Your task to perform on an android device: turn off translation in the chrome app Image 0: 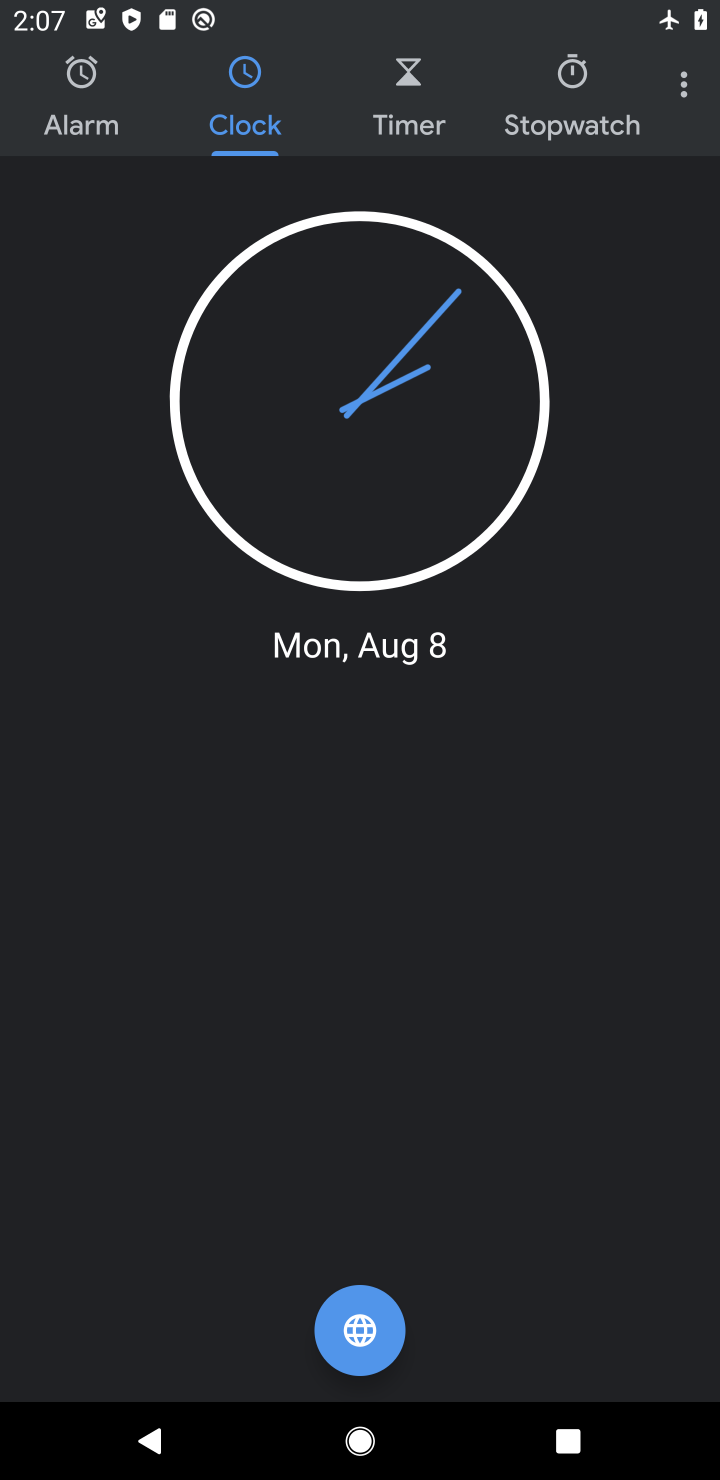
Step 0: press home button
Your task to perform on an android device: turn off translation in the chrome app Image 1: 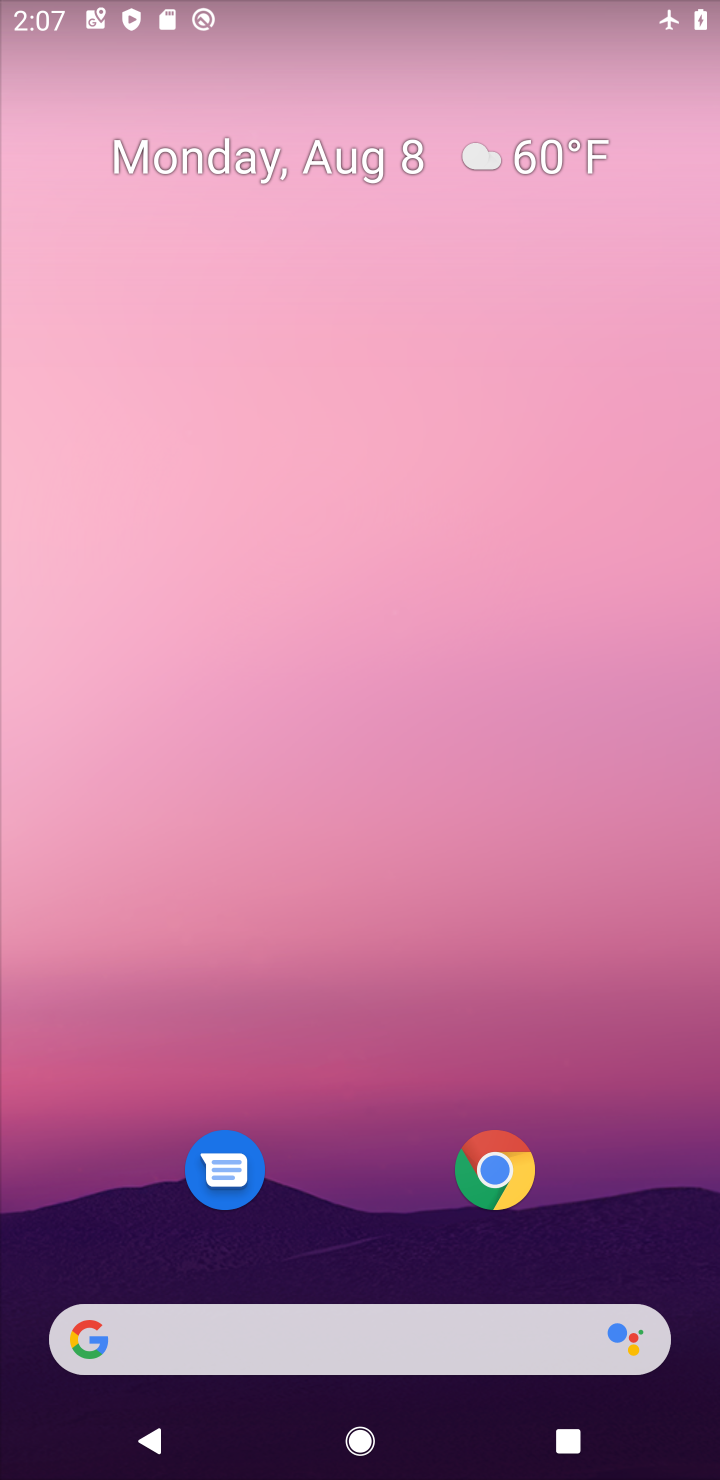
Step 1: click (493, 1145)
Your task to perform on an android device: turn off translation in the chrome app Image 2: 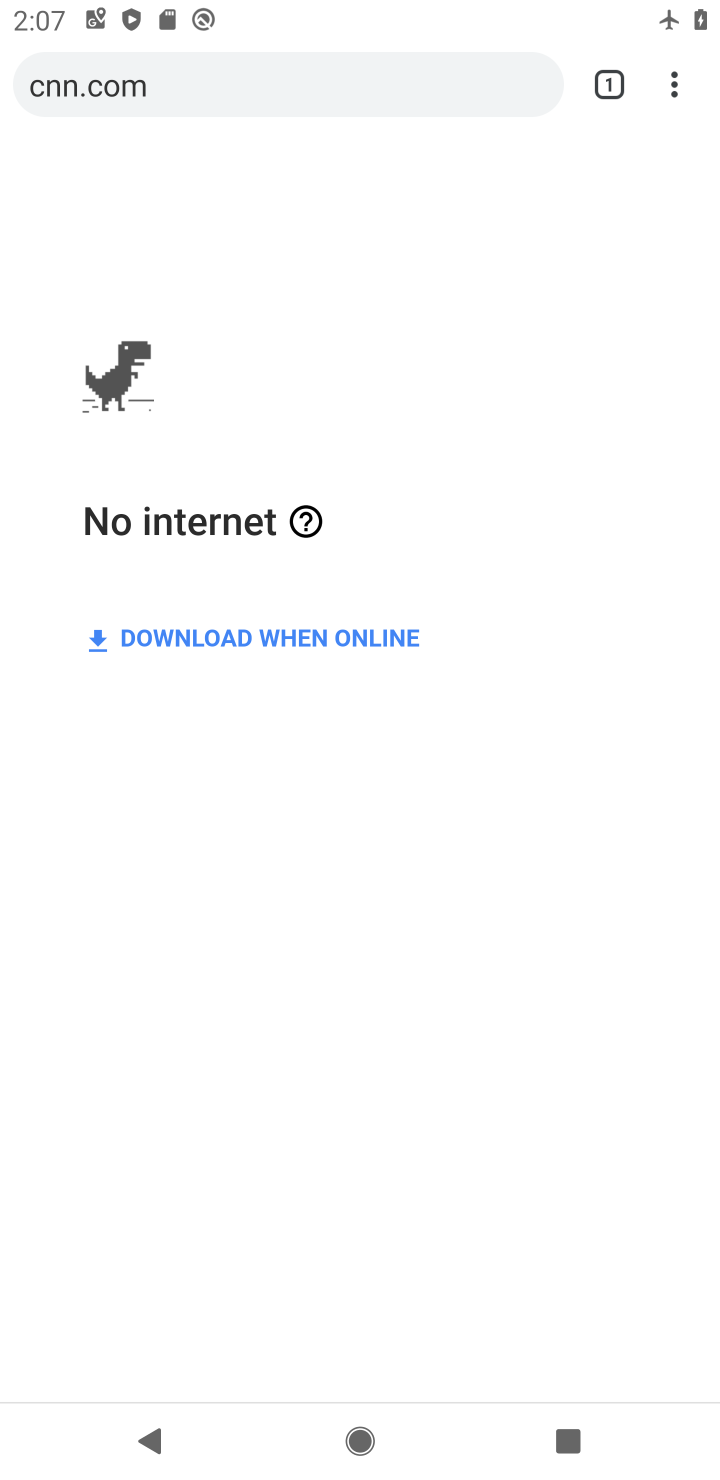
Step 2: click (662, 82)
Your task to perform on an android device: turn off translation in the chrome app Image 3: 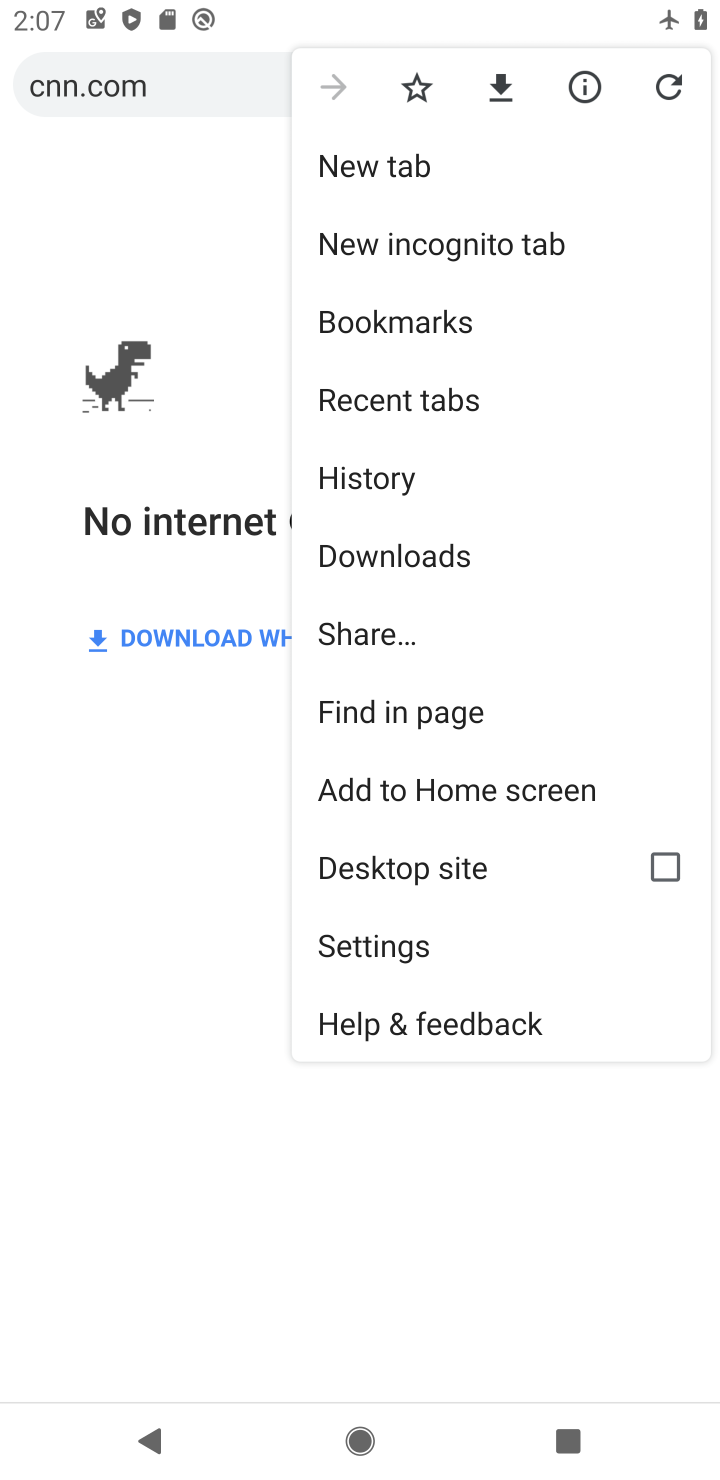
Step 3: click (385, 941)
Your task to perform on an android device: turn off translation in the chrome app Image 4: 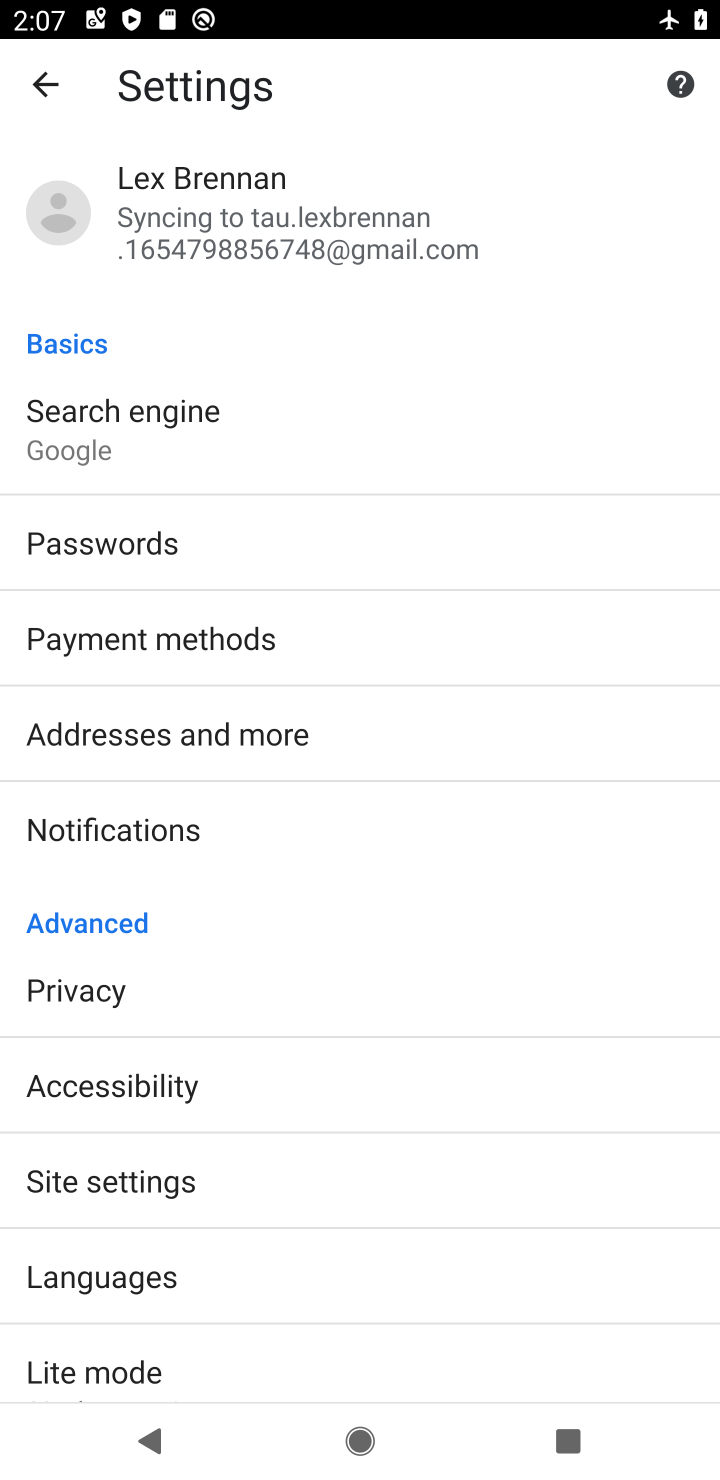
Step 4: click (200, 1279)
Your task to perform on an android device: turn off translation in the chrome app Image 5: 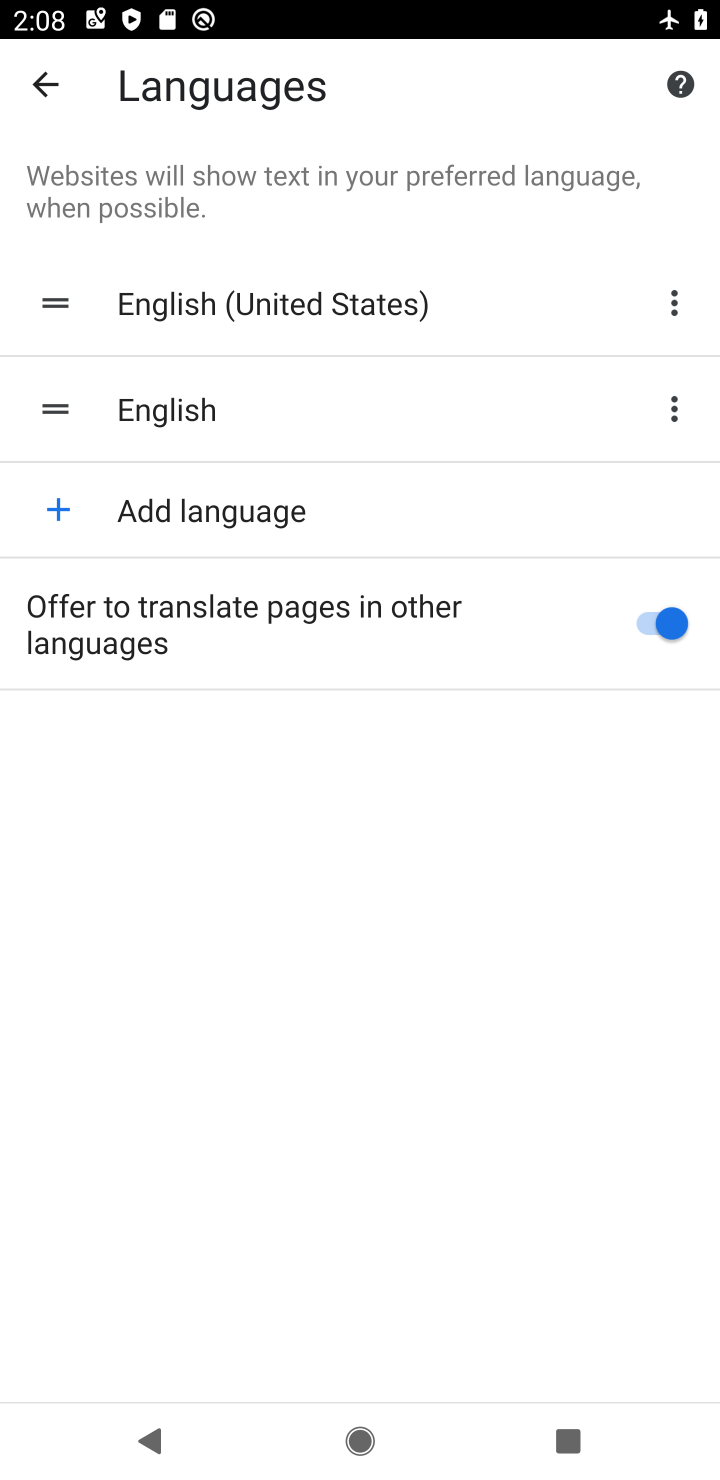
Step 5: click (646, 618)
Your task to perform on an android device: turn off translation in the chrome app Image 6: 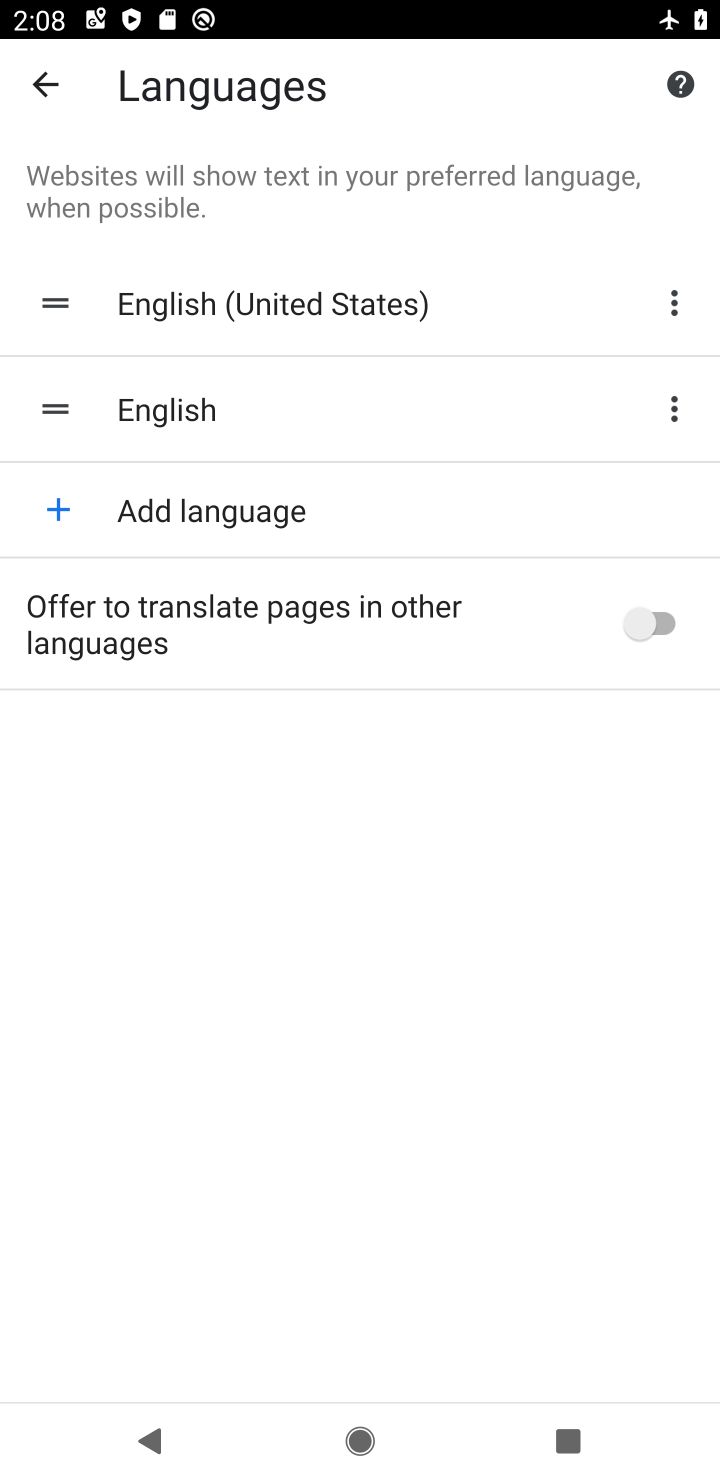
Step 6: task complete